Your task to perform on an android device: set default search engine in the chrome app Image 0: 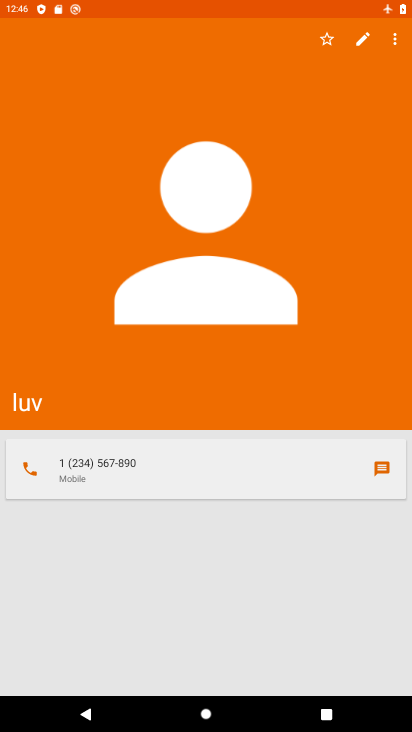
Step 0: press home button
Your task to perform on an android device: set default search engine in the chrome app Image 1: 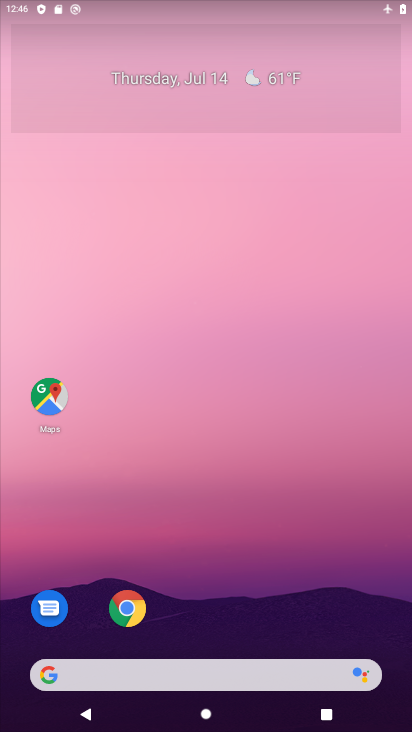
Step 1: drag from (351, 603) to (365, 48)
Your task to perform on an android device: set default search engine in the chrome app Image 2: 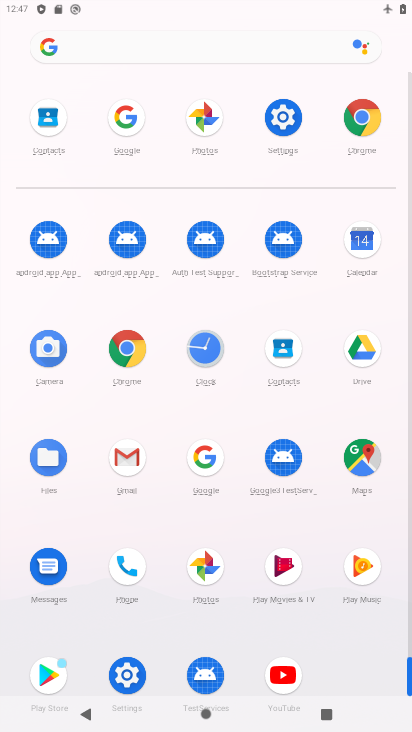
Step 2: click (133, 353)
Your task to perform on an android device: set default search engine in the chrome app Image 3: 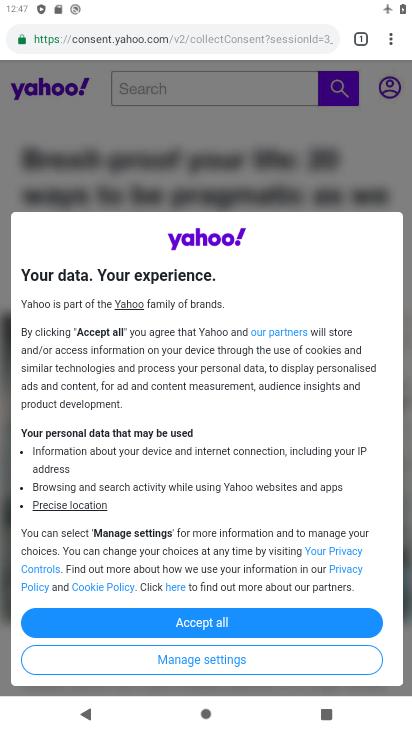
Step 3: click (392, 40)
Your task to perform on an android device: set default search engine in the chrome app Image 4: 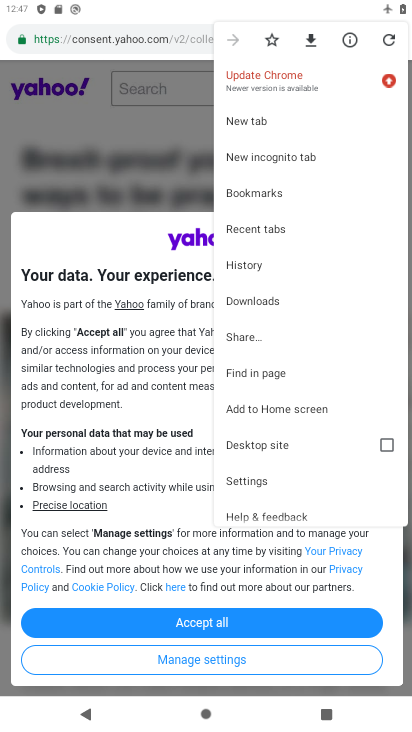
Step 4: click (270, 481)
Your task to perform on an android device: set default search engine in the chrome app Image 5: 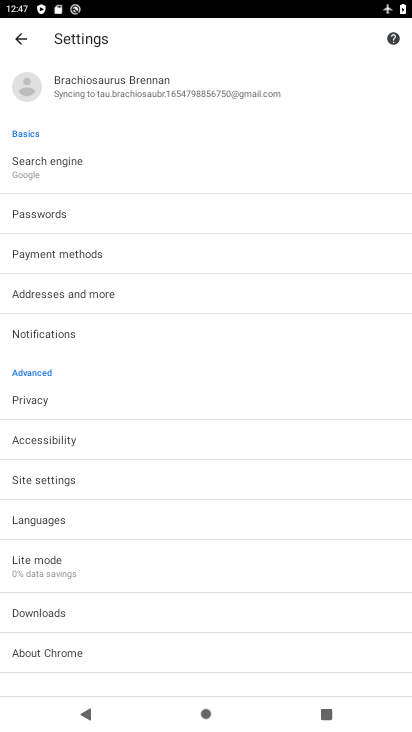
Step 5: click (65, 167)
Your task to perform on an android device: set default search engine in the chrome app Image 6: 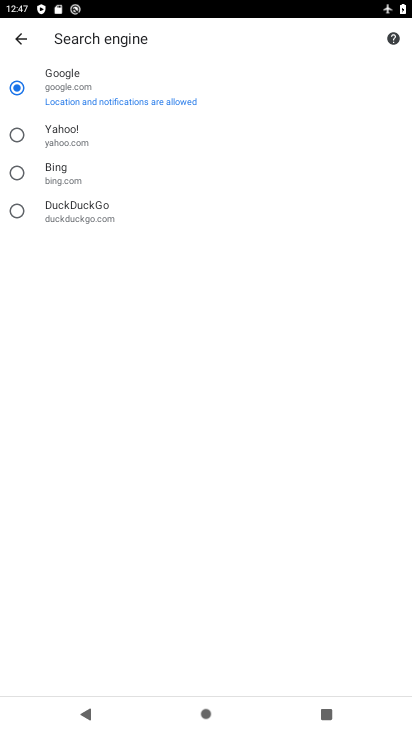
Step 6: click (57, 175)
Your task to perform on an android device: set default search engine in the chrome app Image 7: 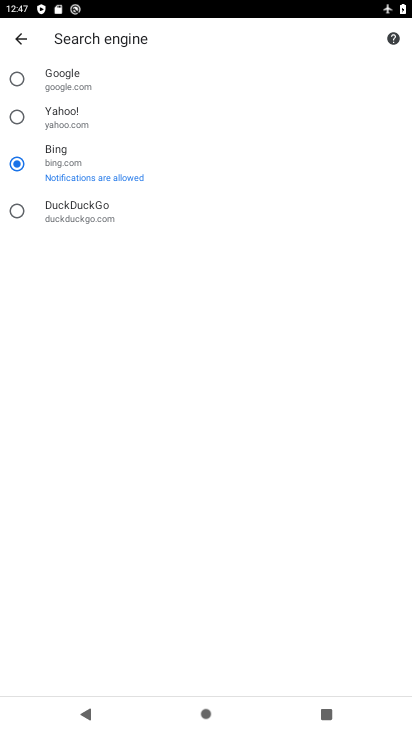
Step 7: task complete